Your task to perform on an android device: open wifi settings Image 0: 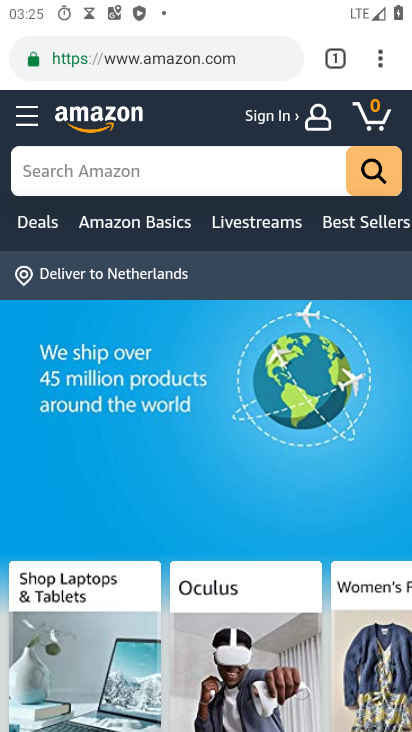
Step 0: press back button
Your task to perform on an android device: open wifi settings Image 1: 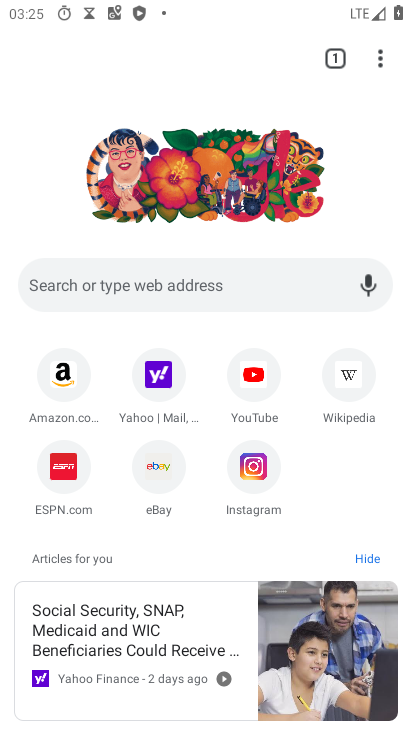
Step 1: press home button
Your task to perform on an android device: open wifi settings Image 2: 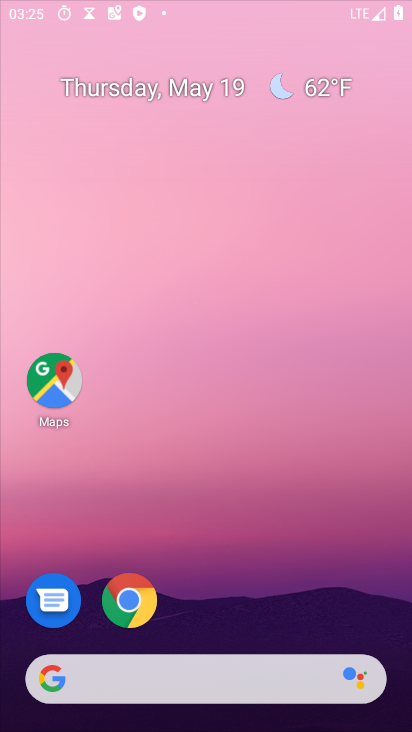
Step 2: drag from (331, 4) to (302, 503)
Your task to perform on an android device: open wifi settings Image 3: 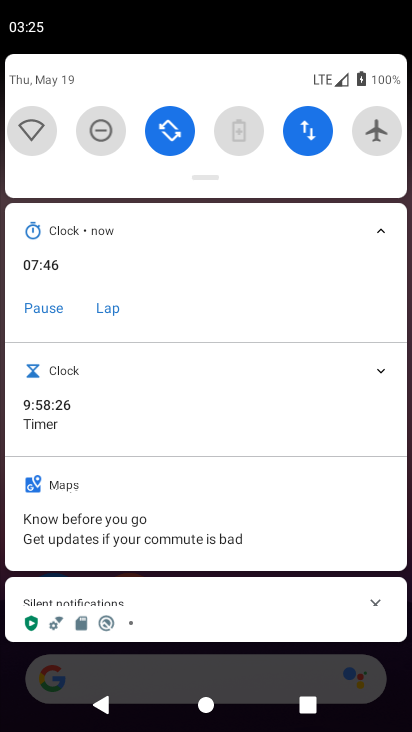
Step 3: click (18, 126)
Your task to perform on an android device: open wifi settings Image 4: 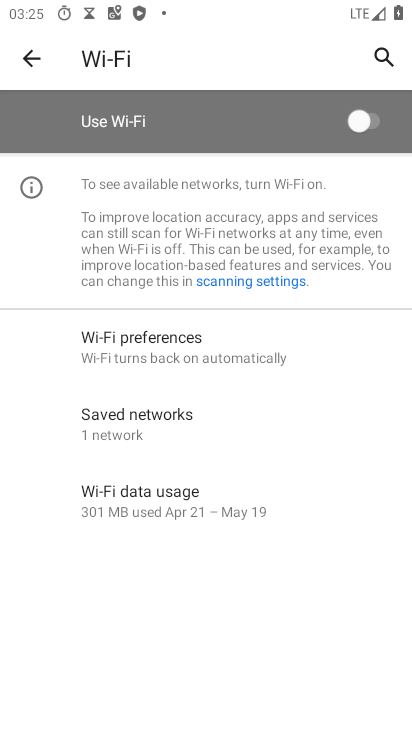
Step 4: task complete